Your task to perform on an android device: Open accessibility settings Image 0: 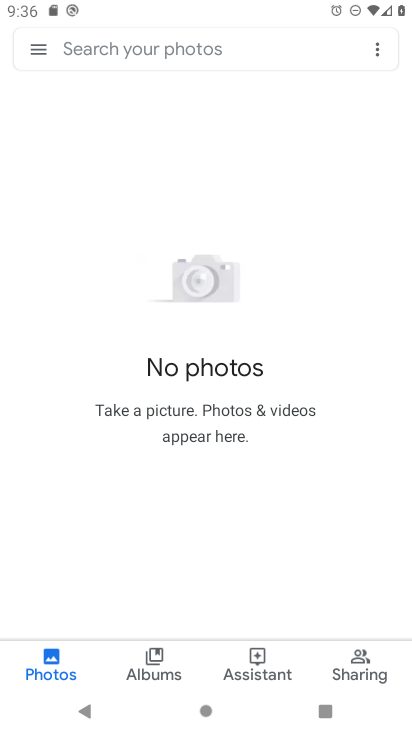
Step 0: press home button
Your task to perform on an android device: Open accessibility settings Image 1: 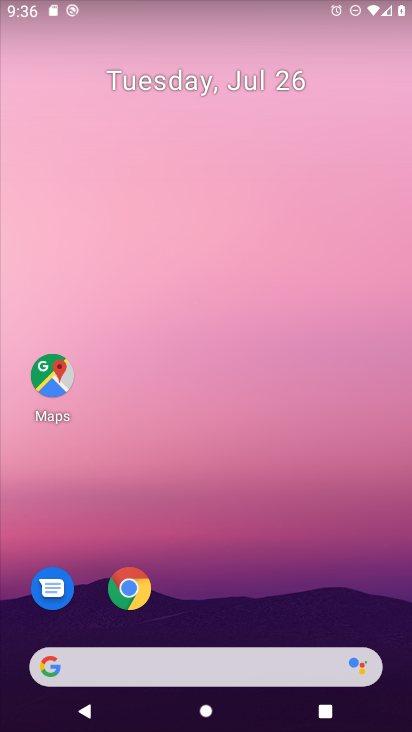
Step 1: click (229, 526)
Your task to perform on an android device: Open accessibility settings Image 2: 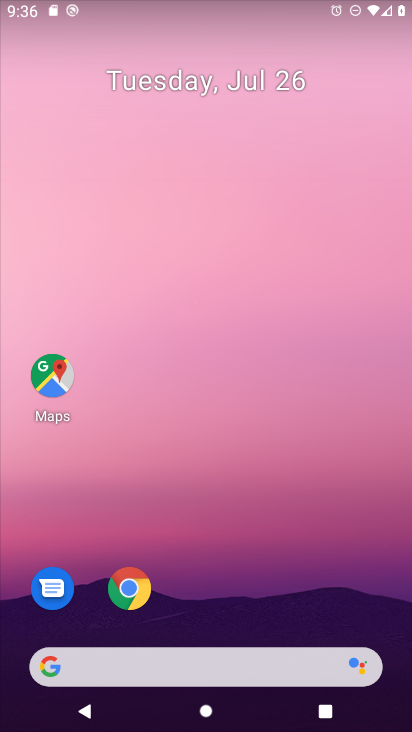
Step 2: drag from (220, 616) to (204, 120)
Your task to perform on an android device: Open accessibility settings Image 3: 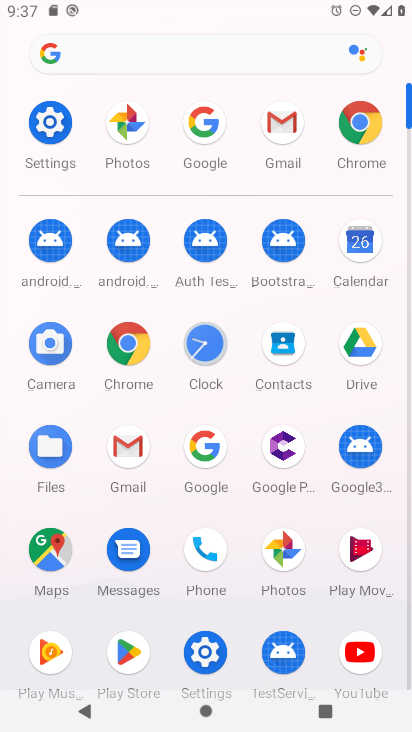
Step 3: click (55, 135)
Your task to perform on an android device: Open accessibility settings Image 4: 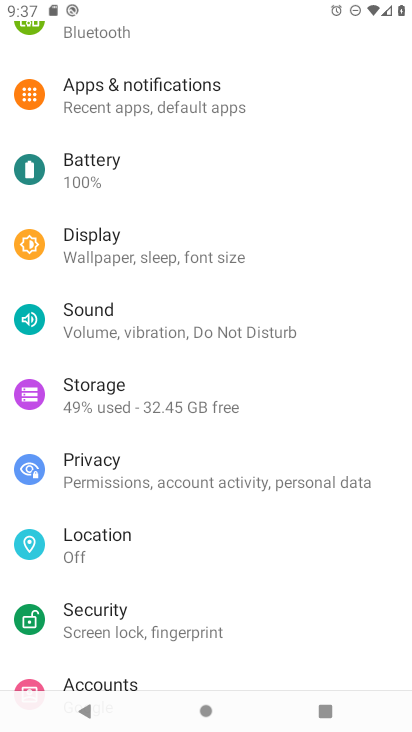
Step 4: drag from (181, 554) to (183, 58)
Your task to perform on an android device: Open accessibility settings Image 5: 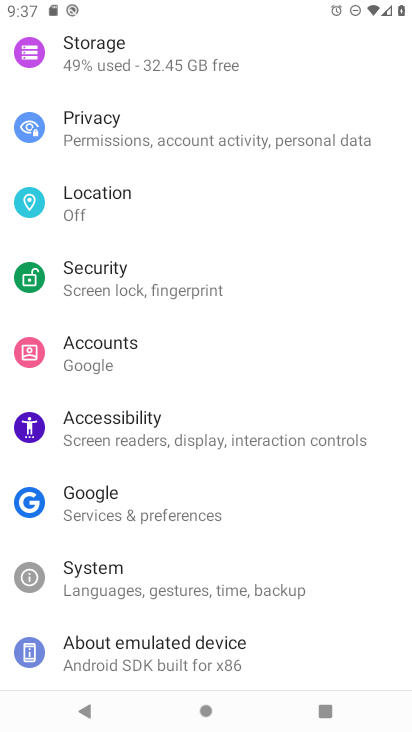
Step 5: click (142, 431)
Your task to perform on an android device: Open accessibility settings Image 6: 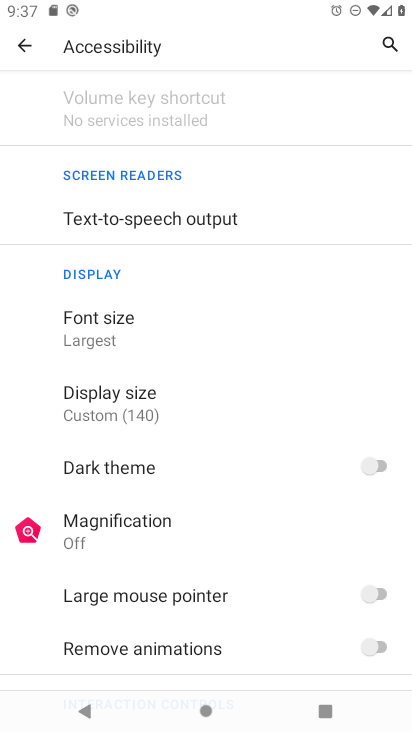
Step 6: task complete